Your task to perform on an android device: What's the weather? Image 0: 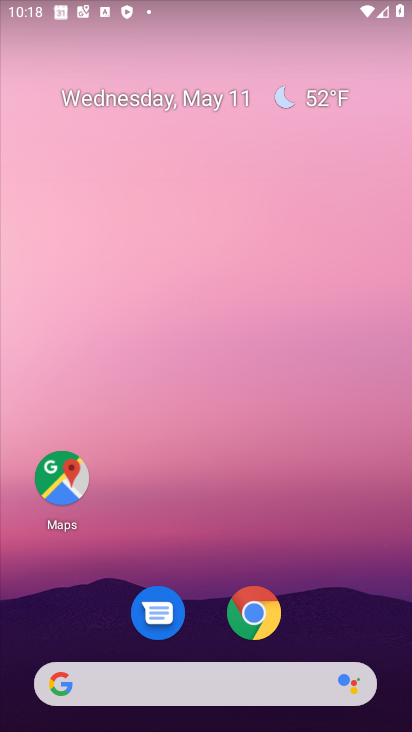
Step 0: drag from (237, 487) to (243, 183)
Your task to perform on an android device: What's the weather? Image 1: 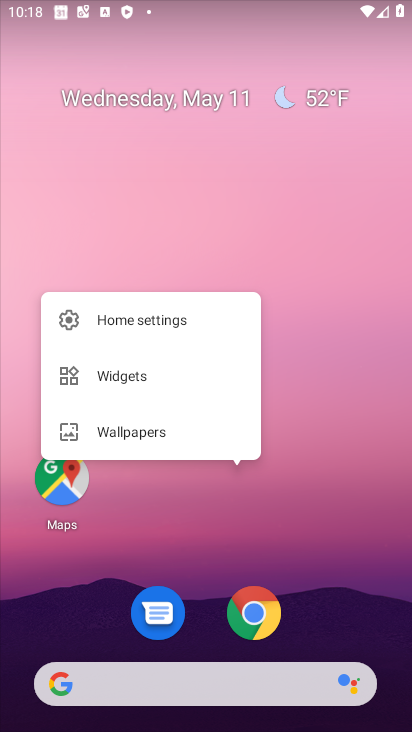
Step 1: click (252, 94)
Your task to perform on an android device: What's the weather? Image 2: 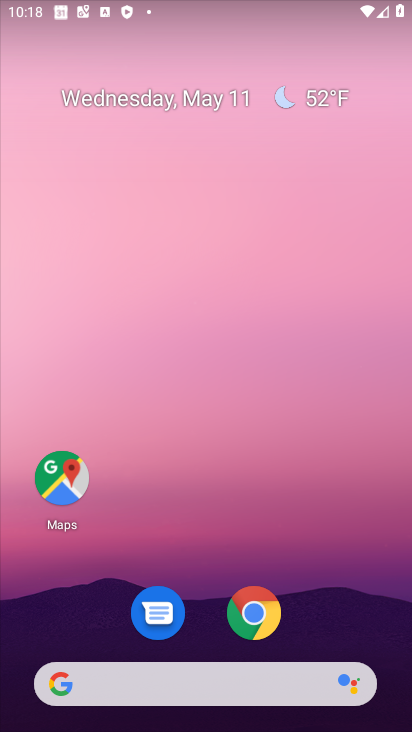
Step 2: click (210, 105)
Your task to perform on an android device: What's the weather? Image 3: 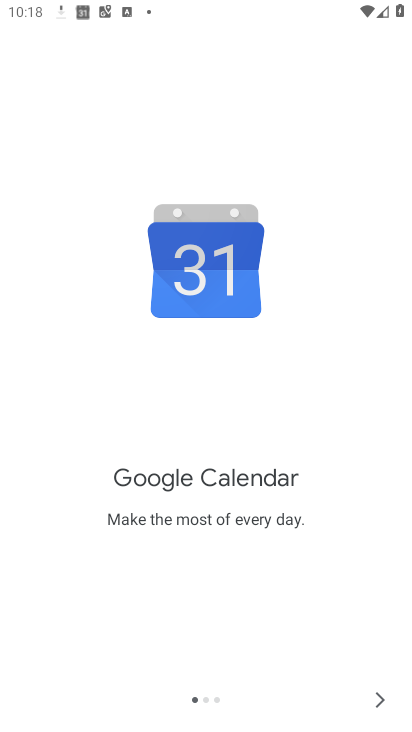
Step 3: press home button
Your task to perform on an android device: What's the weather? Image 4: 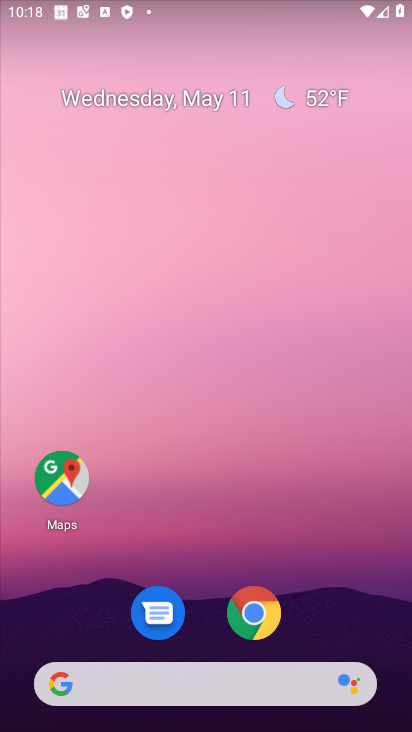
Step 4: drag from (229, 477) to (216, 215)
Your task to perform on an android device: What's the weather? Image 5: 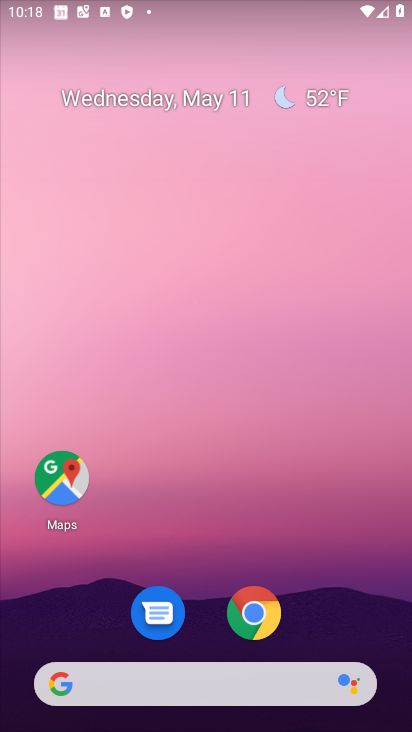
Step 5: drag from (207, 566) to (189, 173)
Your task to perform on an android device: What's the weather? Image 6: 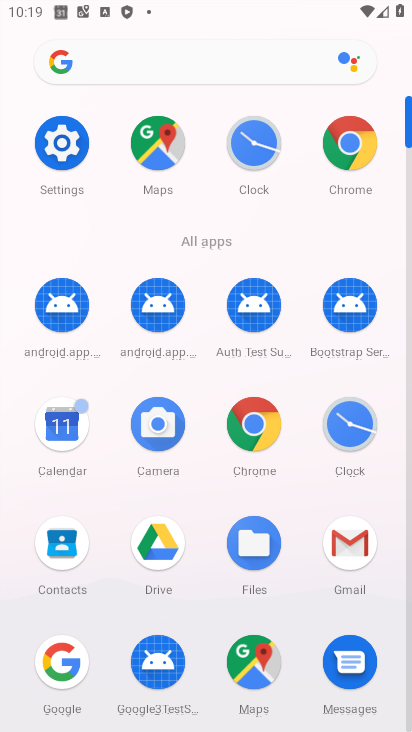
Step 6: click (67, 665)
Your task to perform on an android device: What's the weather? Image 7: 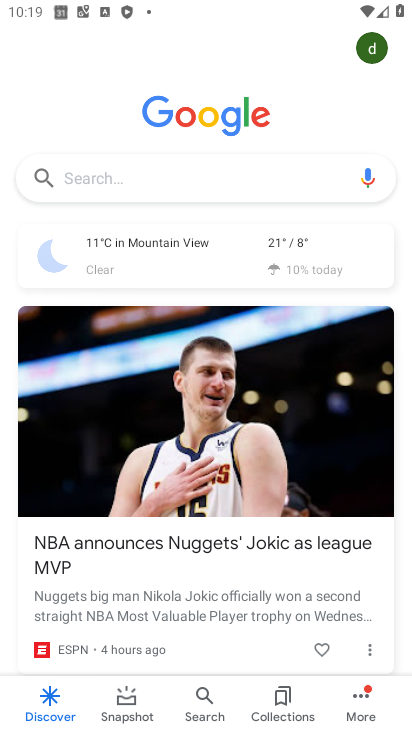
Step 7: click (170, 243)
Your task to perform on an android device: What's the weather? Image 8: 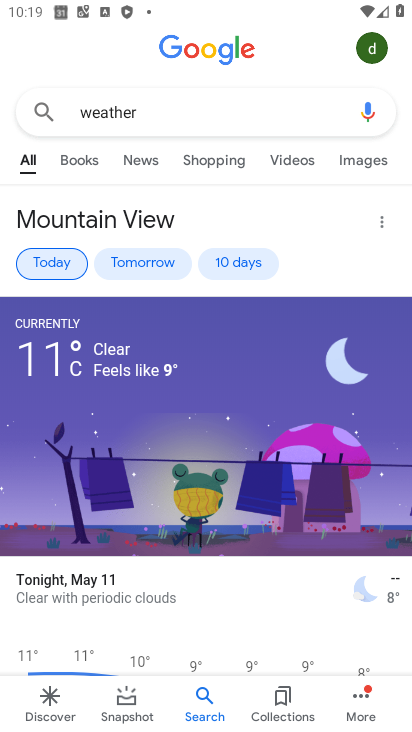
Step 8: task complete